Your task to perform on an android device: set default search engine in the chrome app Image 0: 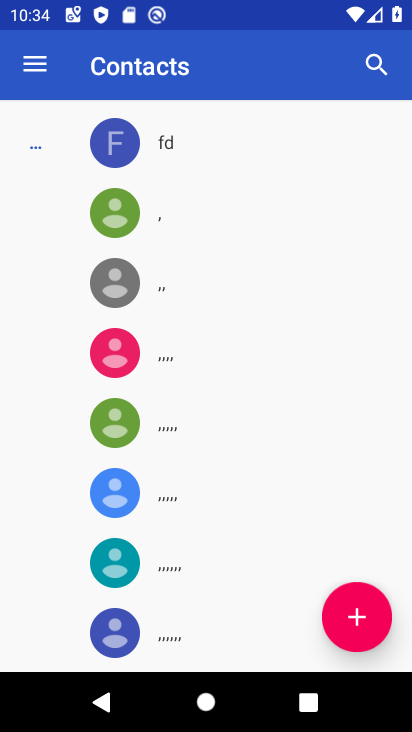
Step 0: press home button
Your task to perform on an android device: set default search engine in the chrome app Image 1: 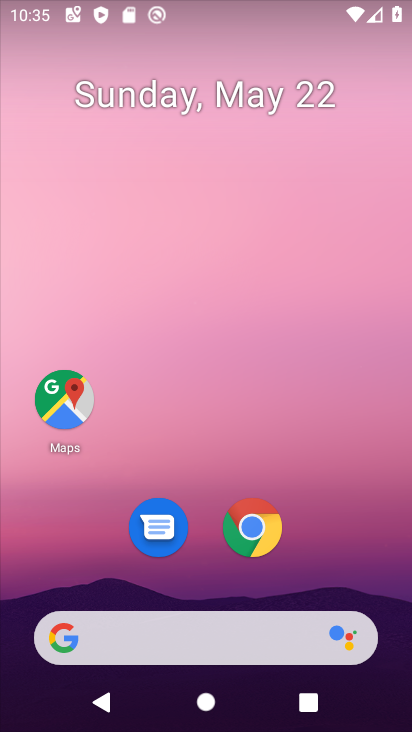
Step 1: click (276, 537)
Your task to perform on an android device: set default search engine in the chrome app Image 2: 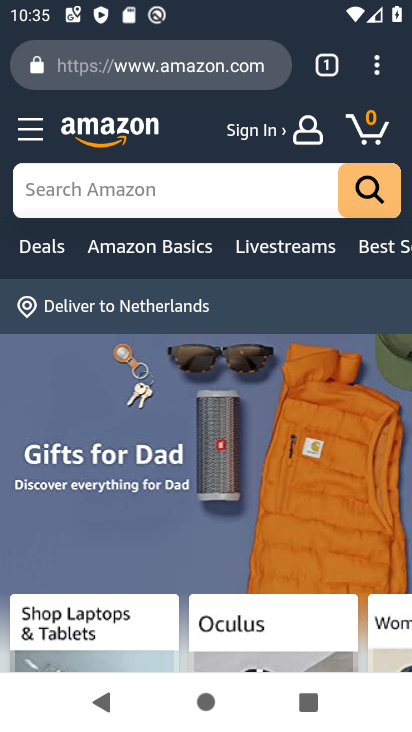
Step 2: click (383, 78)
Your task to perform on an android device: set default search engine in the chrome app Image 3: 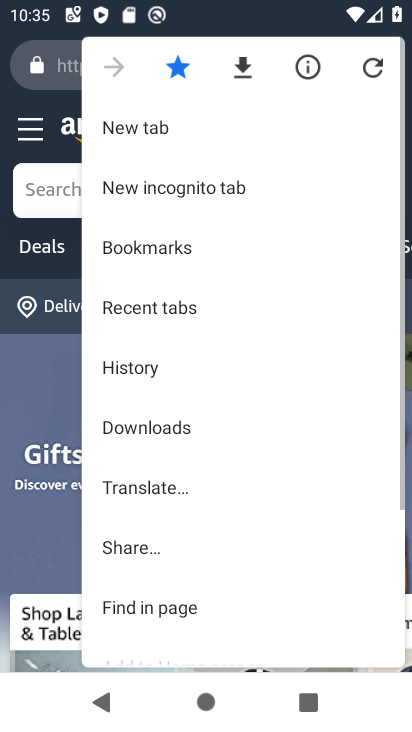
Step 3: drag from (168, 543) to (259, 257)
Your task to perform on an android device: set default search engine in the chrome app Image 4: 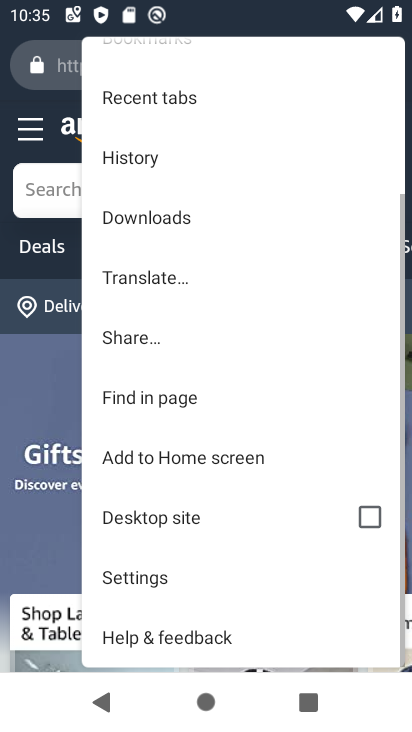
Step 4: click (154, 573)
Your task to perform on an android device: set default search engine in the chrome app Image 5: 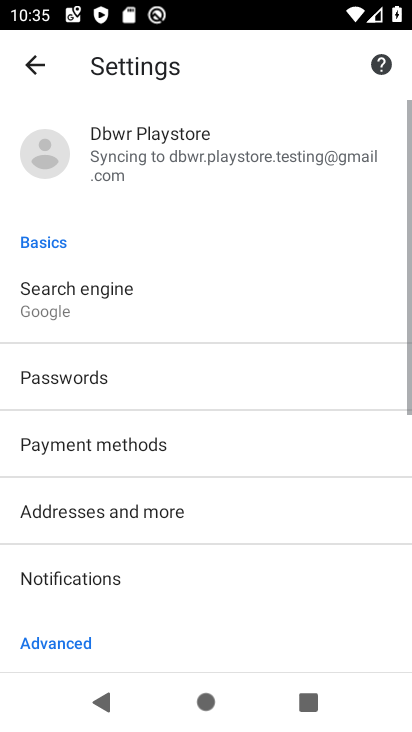
Step 5: click (133, 309)
Your task to perform on an android device: set default search engine in the chrome app Image 6: 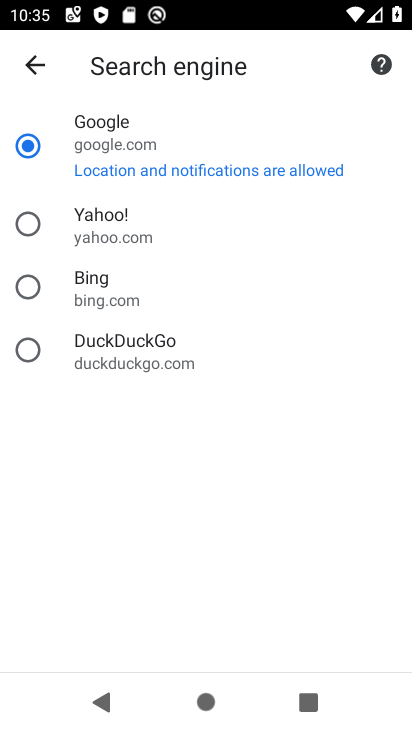
Step 6: click (204, 307)
Your task to perform on an android device: set default search engine in the chrome app Image 7: 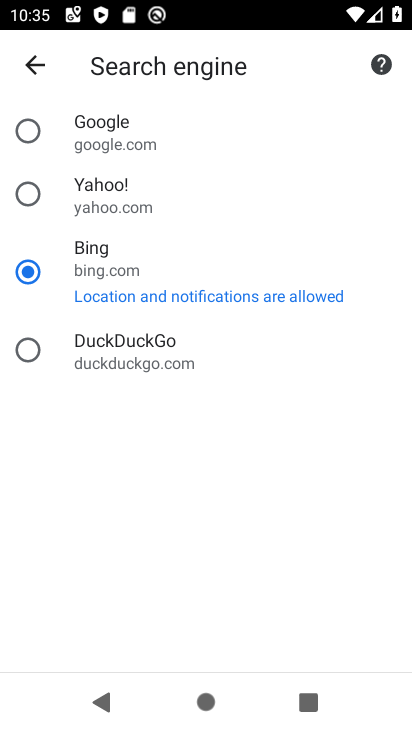
Step 7: task complete